Your task to perform on an android device: turn on bluetooth scan Image 0: 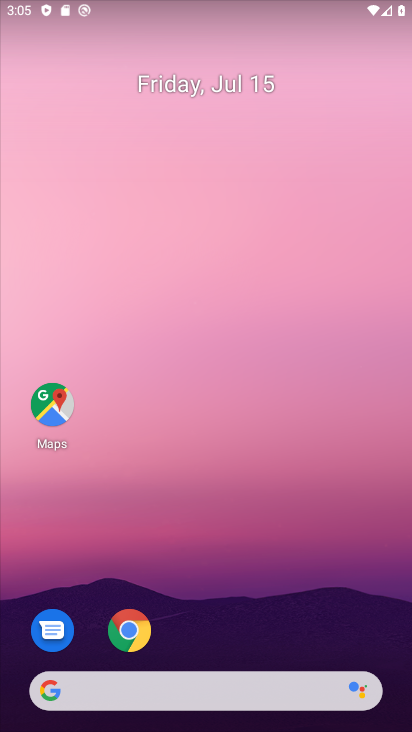
Step 0: drag from (237, 719) to (29, 18)
Your task to perform on an android device: turn on bluetooth scan Image 1: 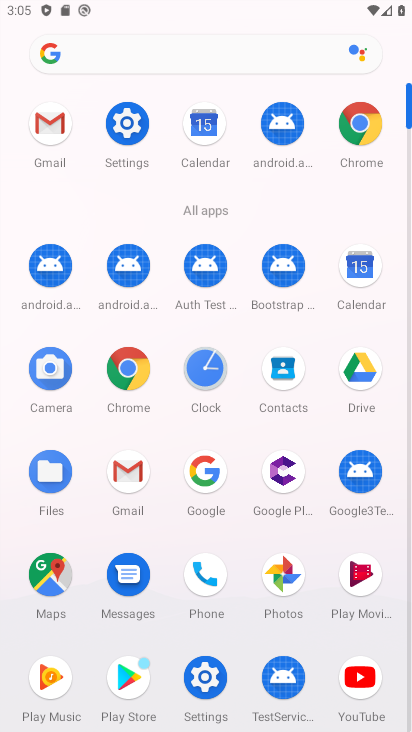
Step 1: drag from (205, 715) to (278, 107)
Your task to perform on an android device: turn on bluetooth scan Image 2: 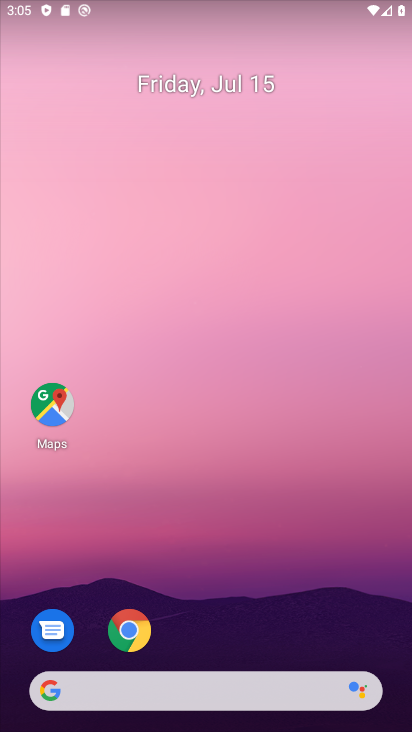
Step 2: drag from (120, 717) to (299, 169)
Your task to perform on an android device: turn on bluetooth scan Image 3: 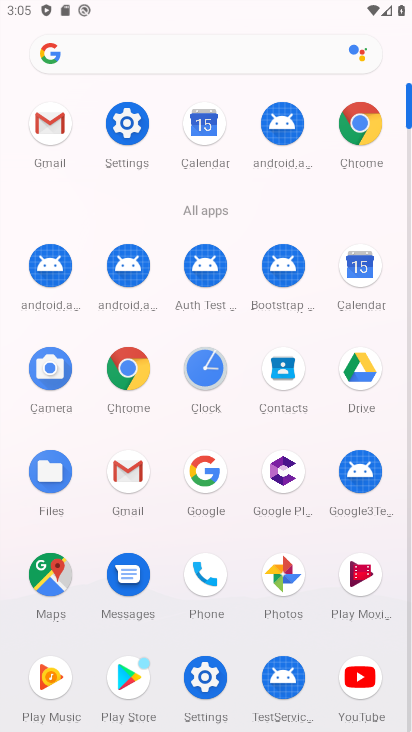
Step 3: click (123, 116)
Your task to perform on an android device: turn on bluetooth scan Image 4: 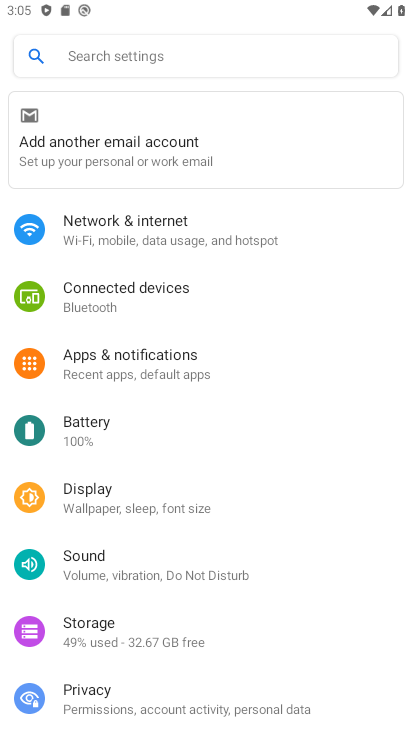
Step 4: click (311, 78)
Your task to perform on an android device: turn on bluetooth scan Image 5: 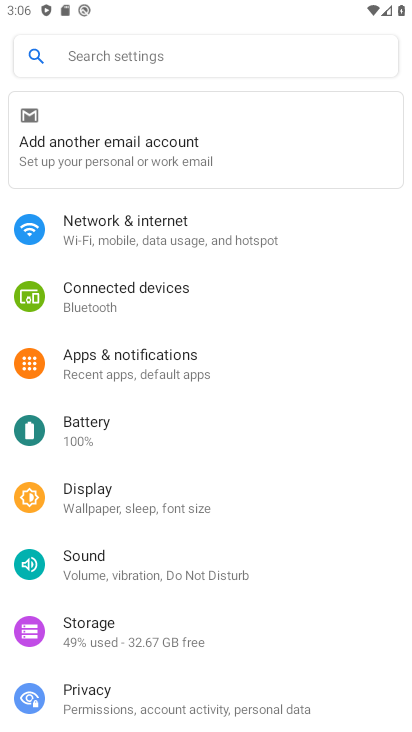
Step 5: drag from (273, 516) to (280, 0)
Your task to perform on an android device: turn on bluetooth scan Image 6: 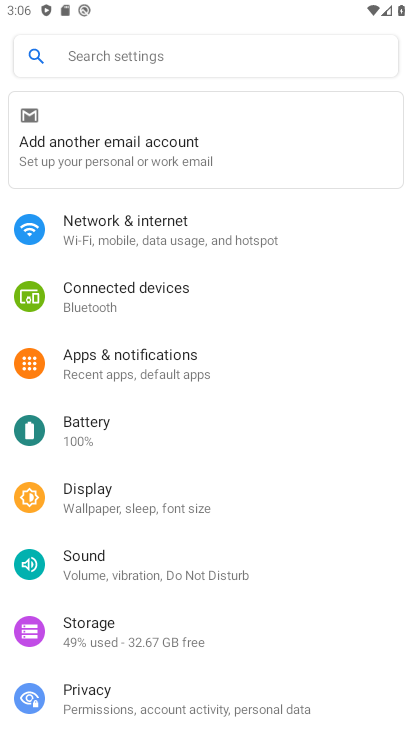
Step 6: drag from (238, 614) to (207, 79)
Your task to perform on an android device: turn on bluetooth scan Image 7: 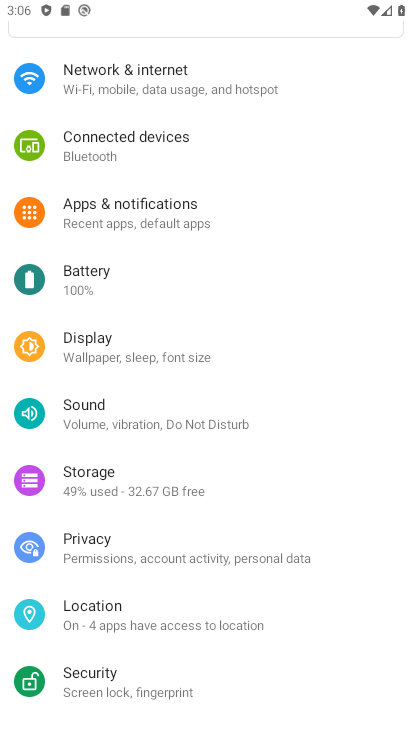
Step 7: drag from (250, 548) to (292, 10)
Your task to perform on an android device: turn on bluetooth scan Image 8: 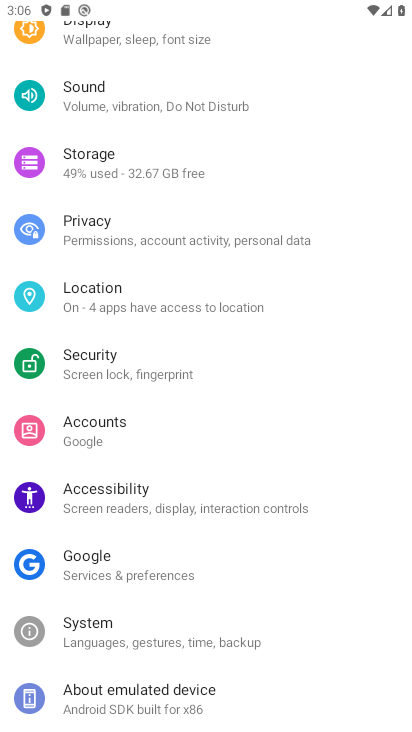
Step 8: drag from (95, 592) to (139, 51)
Your task to perform on an android device: turn on bluetooth scan Image 9: 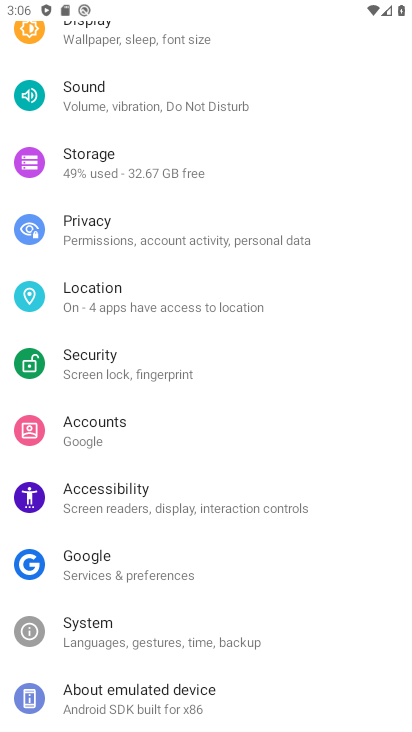
Step 9: click (183, 288)
Your task to perform on an android device: turn on bluetooth scan Image 10: 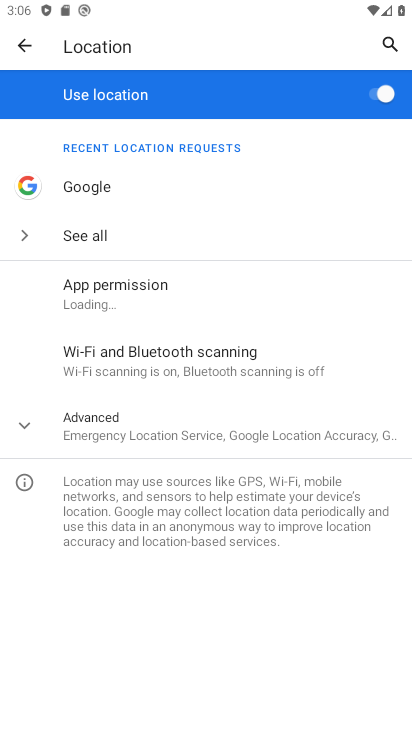
Step 10: click (258, 361)
Your task to perform on an android device: turn on bluetooth scan Image 11: 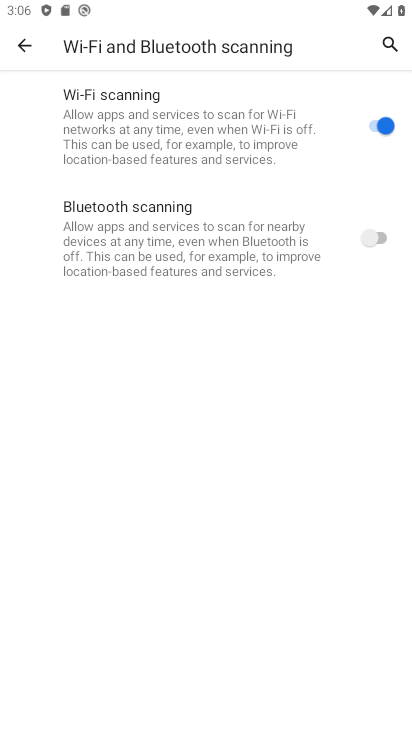
Step 11: click (374, 240)
Your task to perform on an android device: turn on bluetooth scan Image 12: 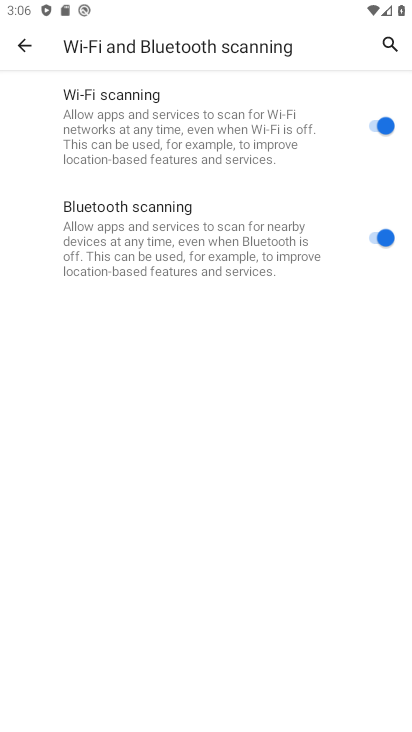
Step 12: task complete